Your task to perform on an android device: Search for sushi restaurants on Maps Image 0: 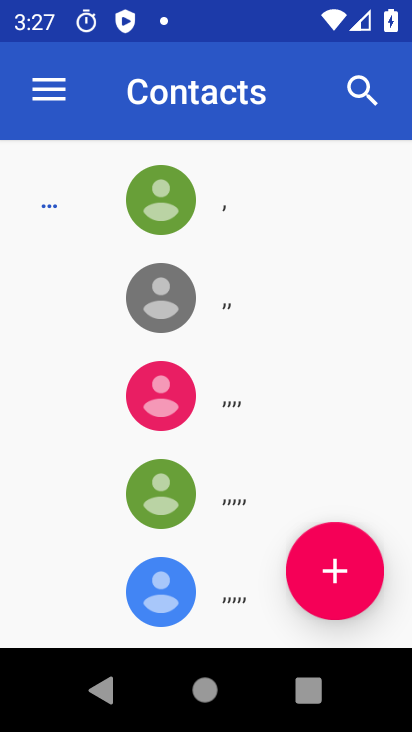
Step 0: press home button
Your task to perform on an android device: Search for sushi restaurants on Maps Image 1: 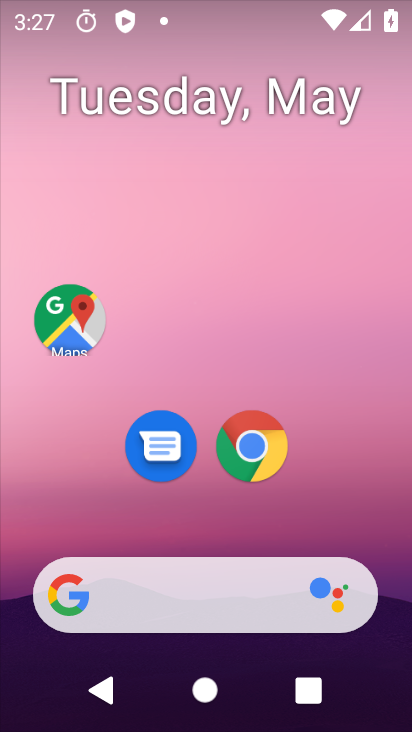
Step 1: drag from (223, 722) to (220, 175)
Your task to perform on an android device: Search for sushi restaurants on Maps Image 2: 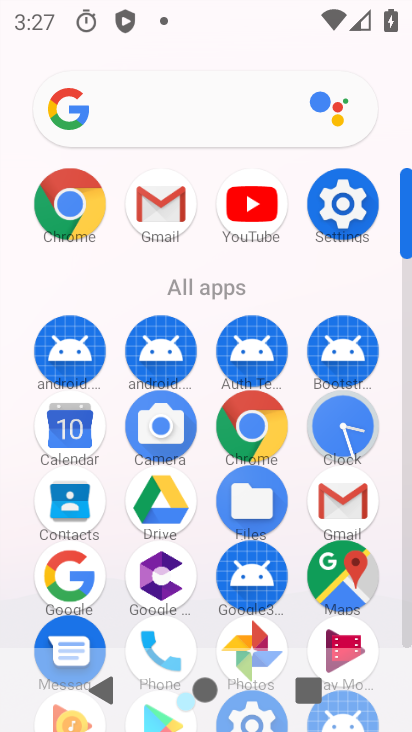
Step 2: click (355, 588)
Your task to perform on an android device: Search for sushi restaurants on Maps Image 3: 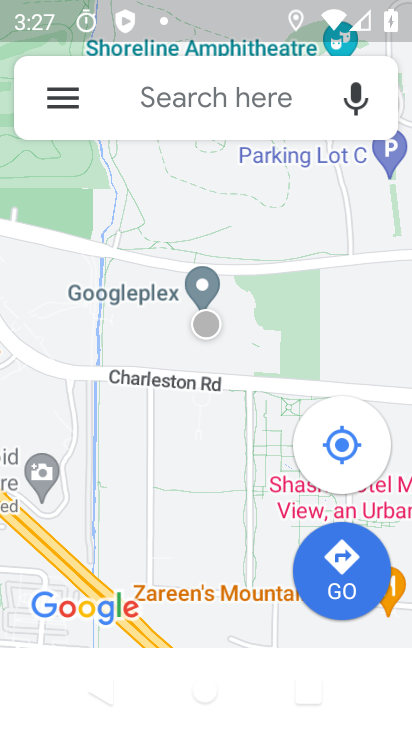
Step 3: click (195, 101)
Your task to perform on an android device: Search for sushi restaurants on Maps Image 4: 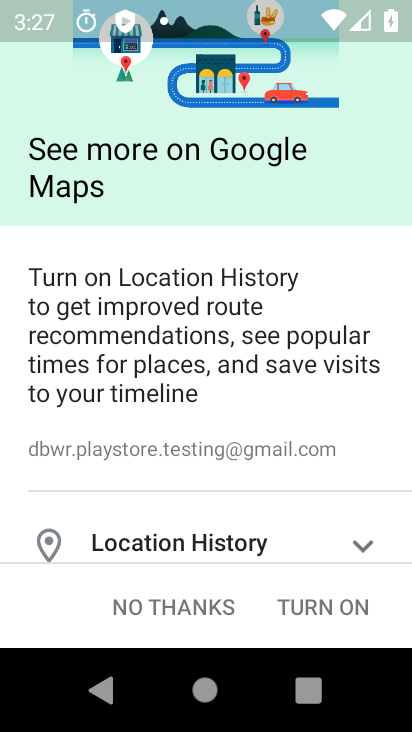
Step 4: type "sushi re"
Your task to perform on an android device: Search for sushi restaurants on Maps Image 5: 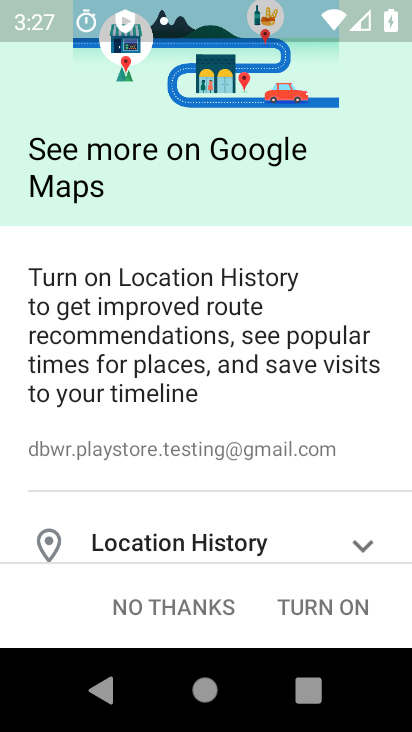
Step 5: click (322, 610)
Your task to perform on an android device: Search for sushi restaurants on Maps Image 6: 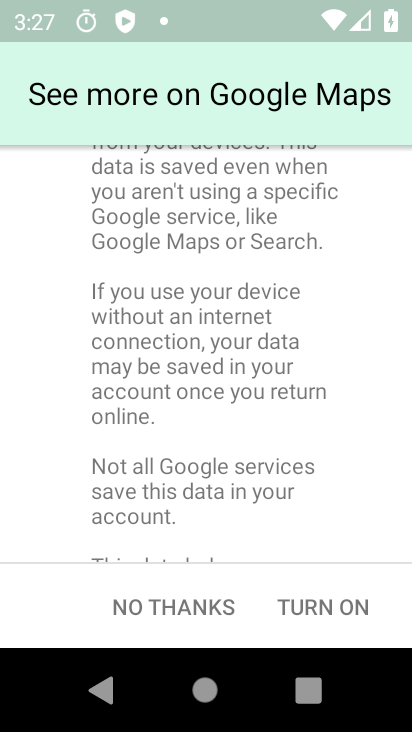
Step 6: click (322, 610)
Your task to perform on an android device: Search for sushi restaurants on Maps Image 7: 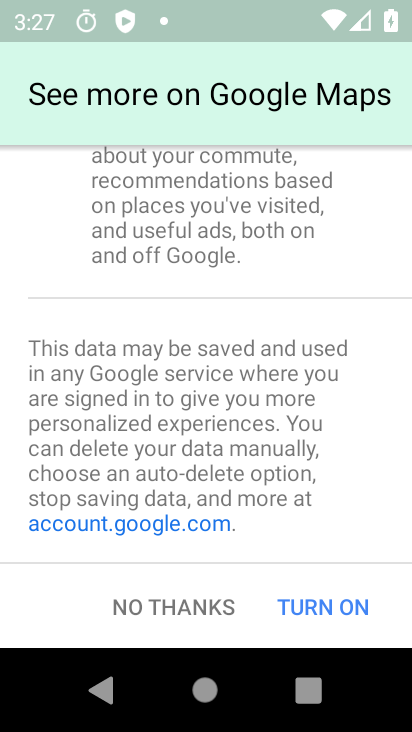
Step 7: click (326, 603)
Your task to perform on an android device: Search for sushi restaurants on Maps Image 8: 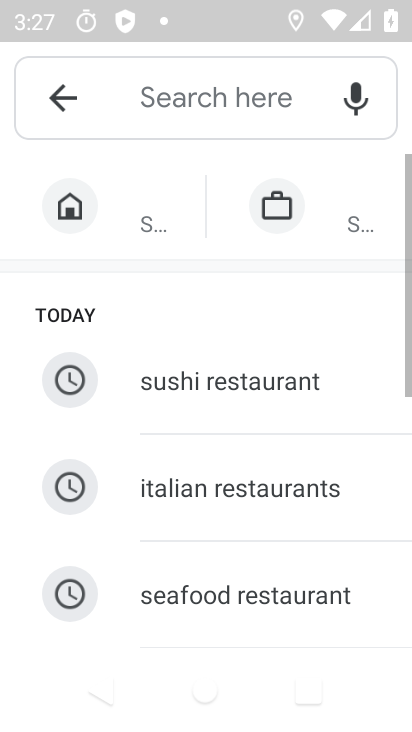
Step 8: click (143, 94)
Your task to perform on an android device: Search for sushi restaurants on Maps Image 9: 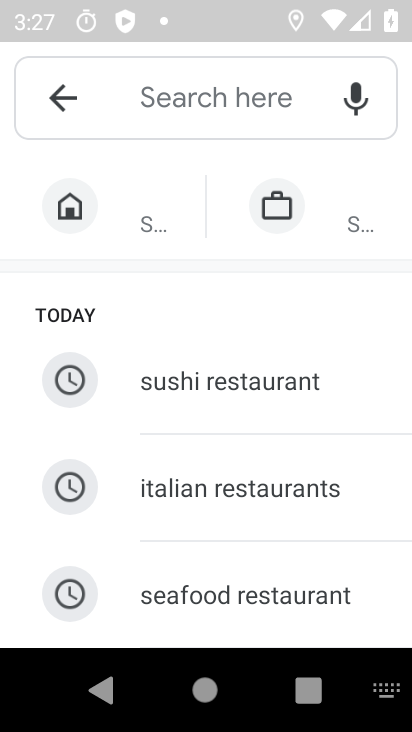
Step 9: type "sushi restaurants"
Your task to perform on an android device: Search for sushi restaurants on Maps Image 10: 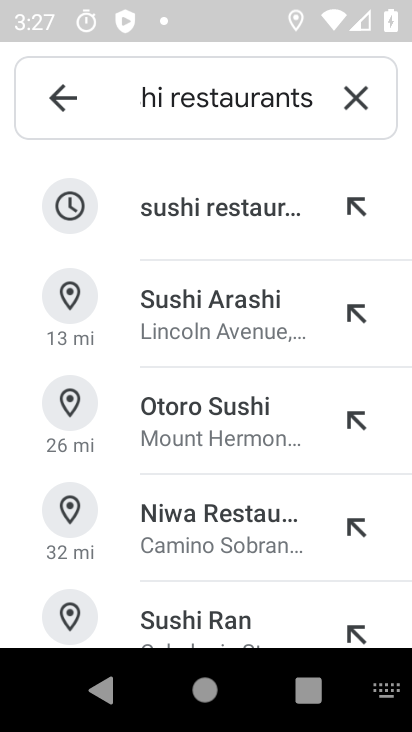
Step 10: click (226, 199)
Your task to perform on an android device: Search for sushi restaurants on Maps Image 11: 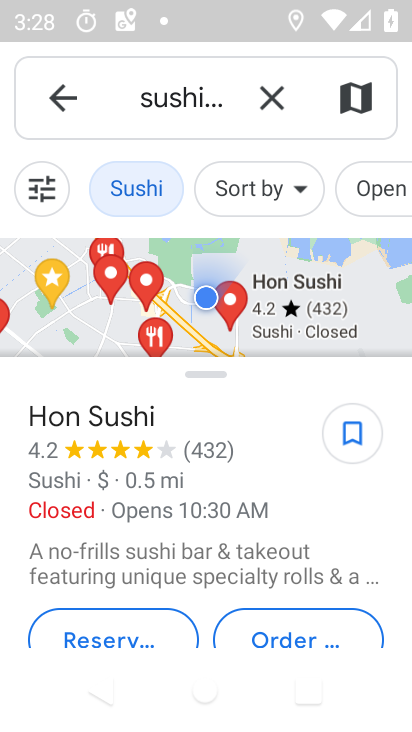
Step 11: task complete